Your task to perform on an android device: Do I have any events this weekend? Image 0: 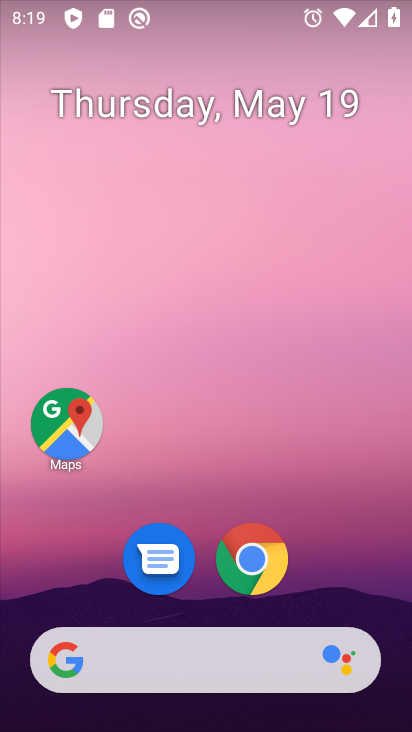
Step 0: drag from (347, 567) to (338, 37)
Your task to perform on an android device: Do I have any events this weekend? Image 1: 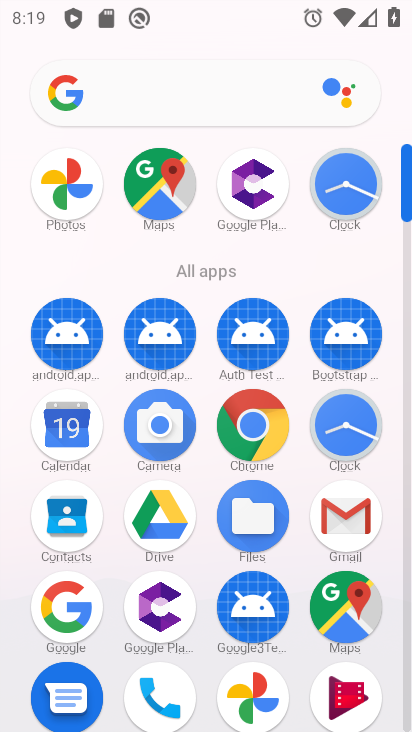
Step 1: click (407, 715)
Your task to perform on an android device: Do I have any events this weekend? Image 2: 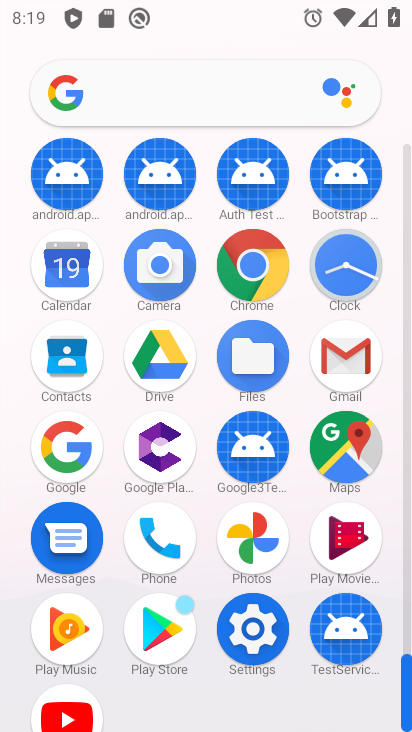
Step 2: click (68, 283)
Your task to perform on an android device: Do I have any events this weekend? Image 3: 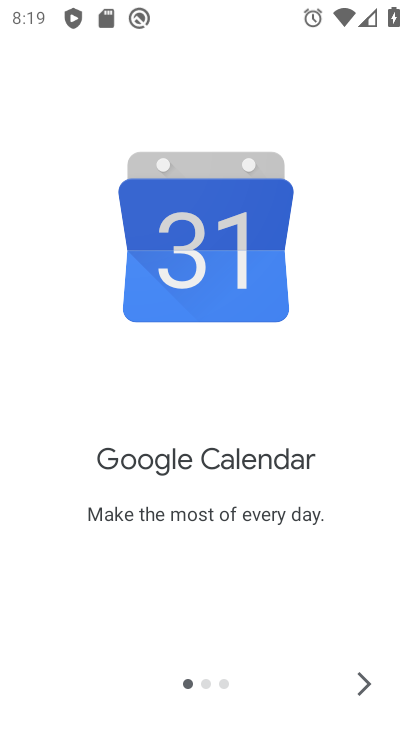
Step 3: click (373, 675)
Your task to perform on an android device: Do I have any events this weekend? Image 4: 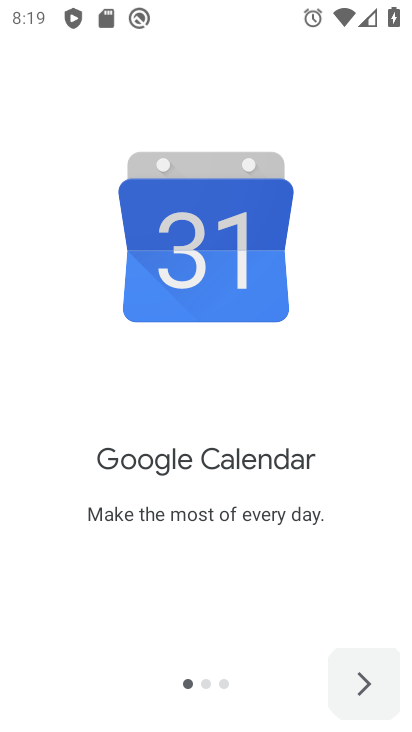
Step 4: click (373, 675)
Your task to perform on an android device: Do I have any events this weekend? Image 5: 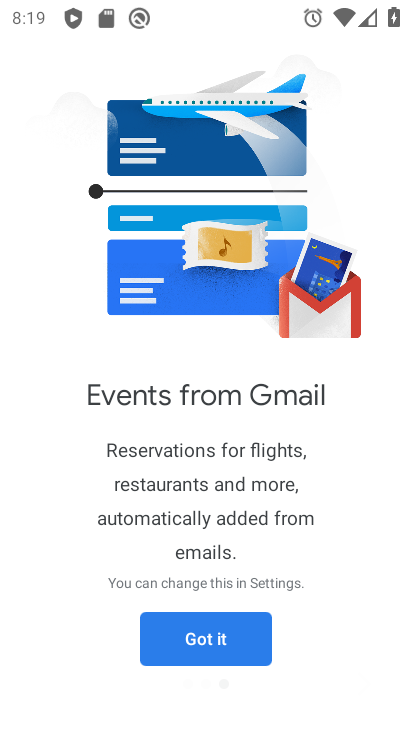
Step 5: click (373, 675)
Your task to perform on an android device: Do I have any events this weekend? Image 6: 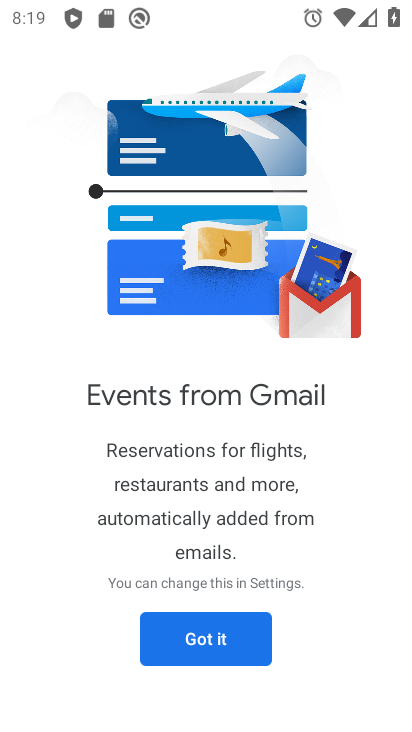
Step 6: click (237, 639)
Your task to perform on an android device: Do I have any events this weekend? Image 7: 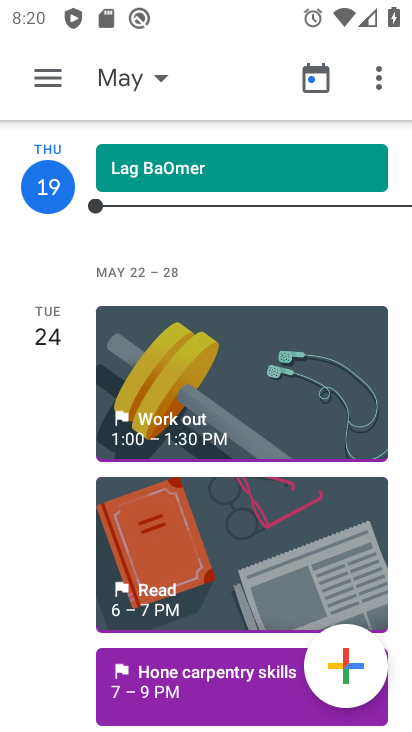
Step 7: task complete